Your task to perform on an android device: Open Youtube and go to "Your channel" Image 0: 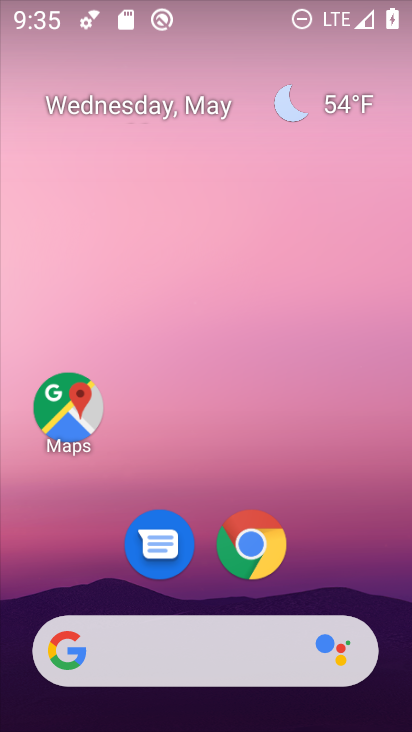
Step 0: drag from (182, 583) to (208, 126)
Your task to perform on an android device: Open Youtube and go to "Your channel" Image 1: 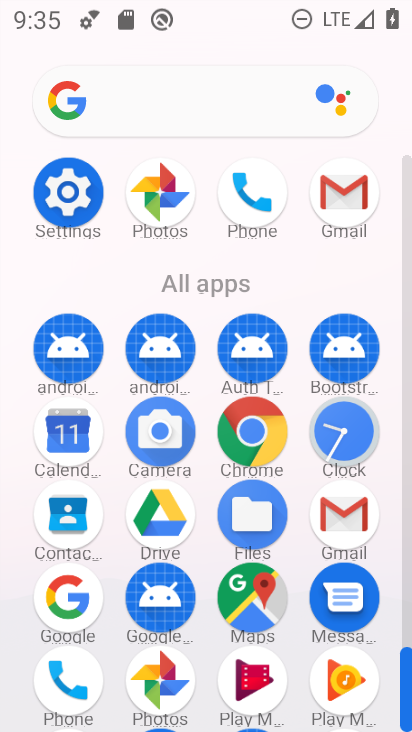
Step 1: drag from (187, 615) to (372, 69)
Your task to perform on an android device: Open Youtube and go to "Your channel" Image 2: 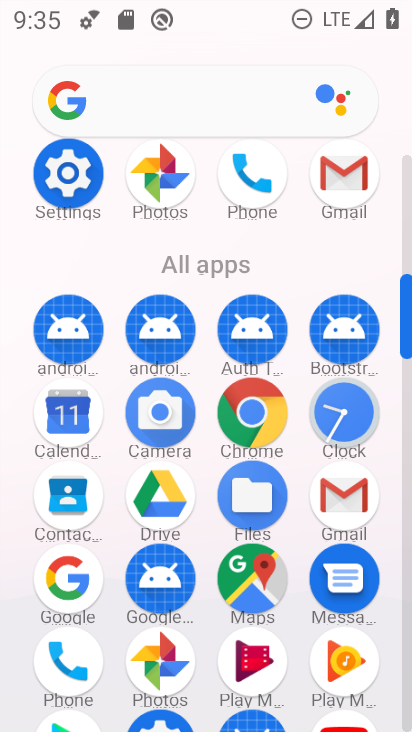
Step 2: drag from (296, 671) to (355, 21)
Your task to perform on an android device: Open Youtube and go to "Your channel" Image 3: 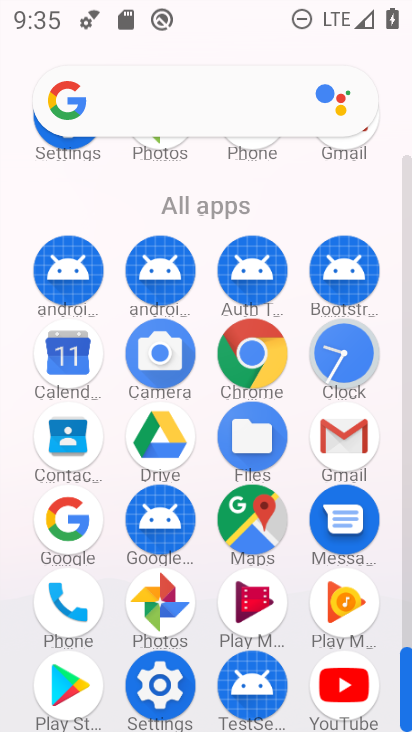
Step 3: click (334, 699)
Your task to perform on an android device: Open Youtube and go to "Your channel" Image 4: 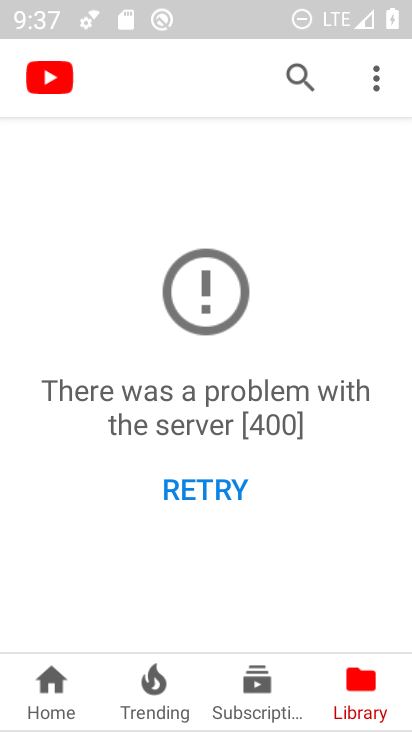
Step 4: task complete